Your task to perform on an android device: Do I have any events this weekend? Image 0: 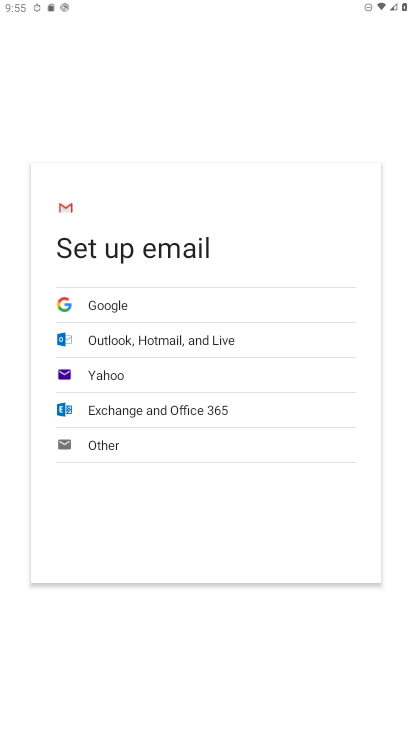
Step 0: press home button
Your task to perform on an android device: Do I have any events this weekend? Image 1: 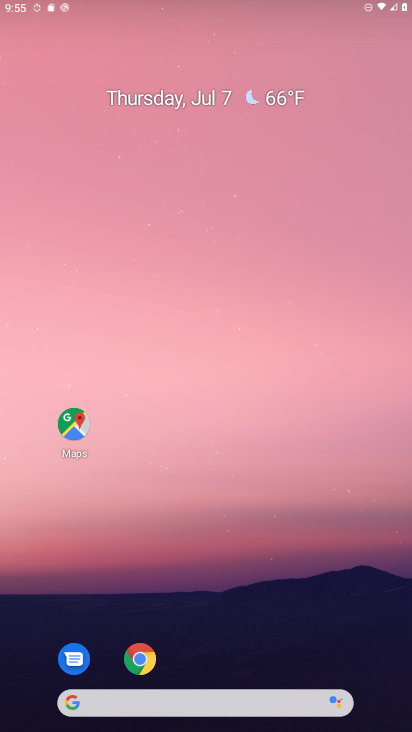
Step 1: drag from (363, 679) to (156, 22)
Your task to perform on an android device: Do I have any events this weekend? Image 2: 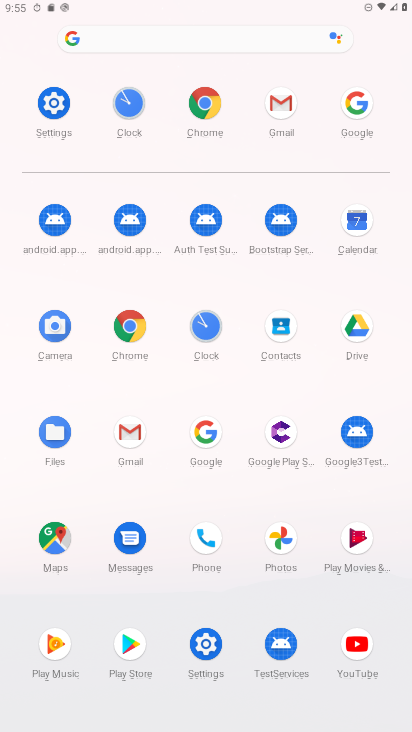
Step 2: click (344, 223)
Your task to perform on an android device: Do I have any events this weekend? Image 3: 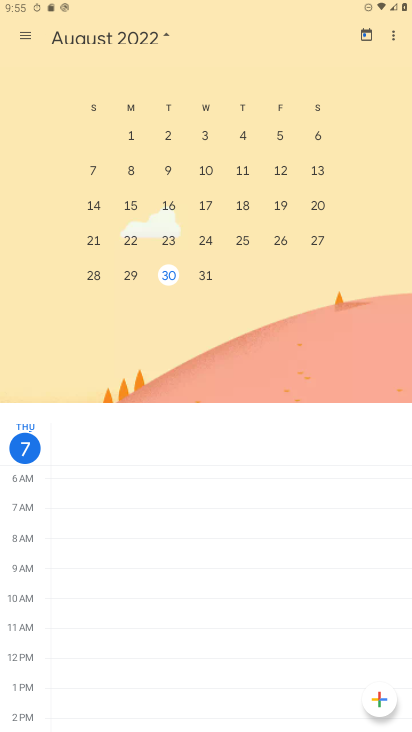
Step 3: task complete